Your task to perform on an android device: toggle wifi Image 0: 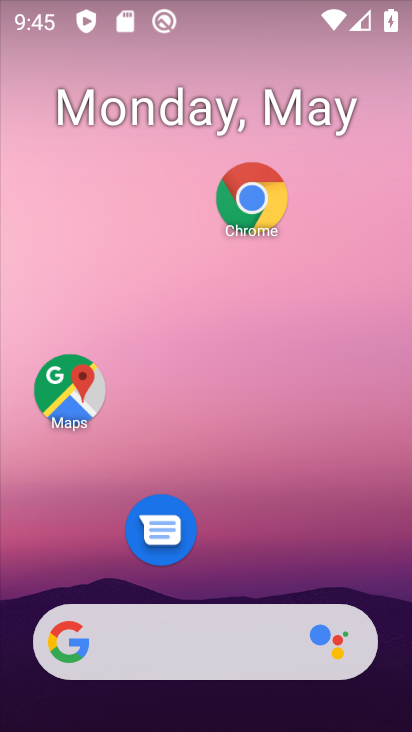
Step 0: drag from (241, 549) to (284, 0)
Your task to perform on an android device: toggle wifi Image 1: 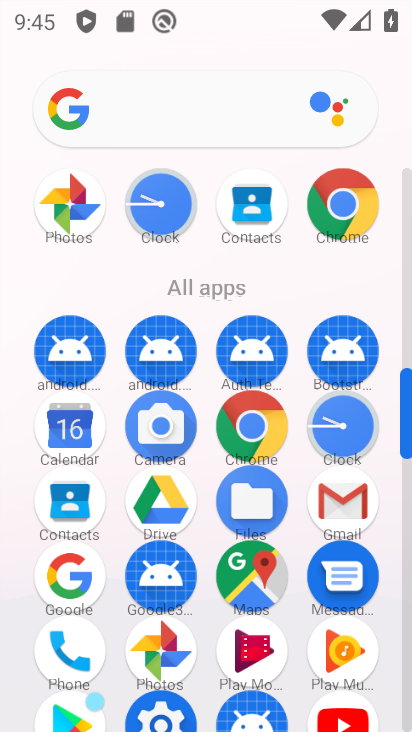
Step 1: click (153, 719)
Your task to perform on an android device: toggle wifi Image 2: 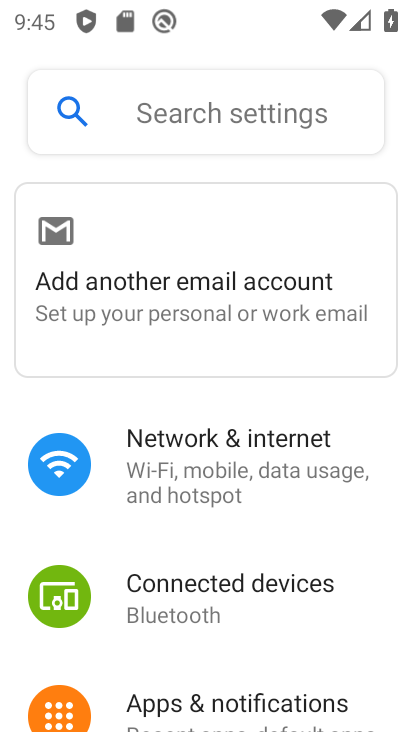
Step 2: click (203, 472)
Your task to perform on an android device: toggle wifi Image 3: 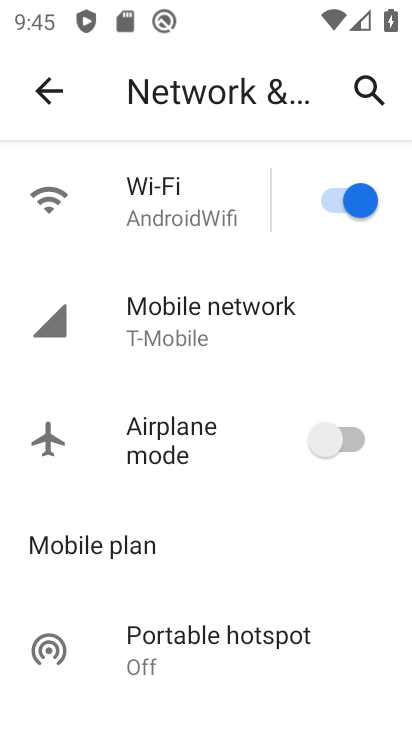
Step 3: task complete